Your task to perform on an android device: turn on translation in the chrome app Image 0: 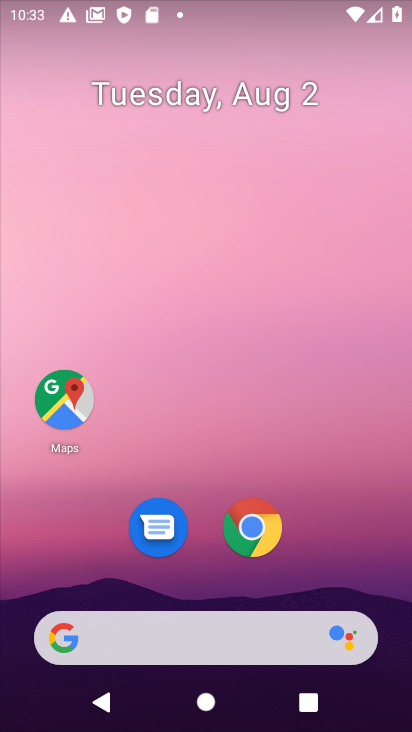
Step 0: click (249, 524)
Your task to perform on an android device: turn on translation in the chrome app Image 1: 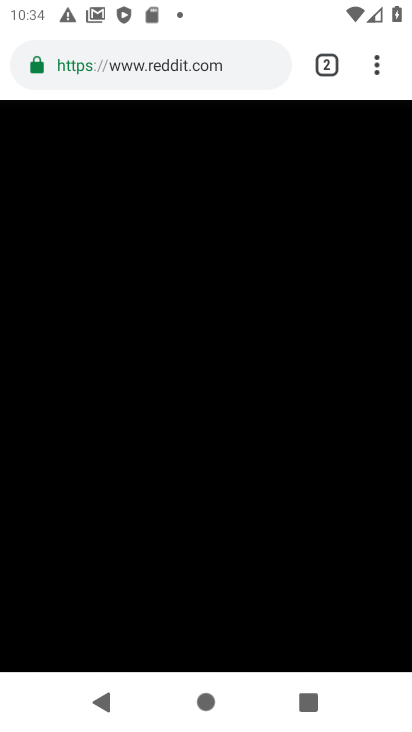
Step 1: click (378, 57)
Your task to perform on an android device: turn on translation in the chrome app Image 2: 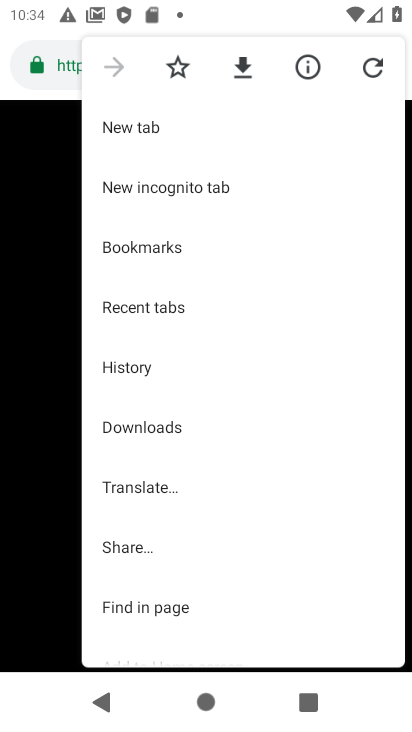
Step 2: drag from (225, 619) to (241, 129)
Your task to perform on an android device: turn on translation in the chrome app Image 3: 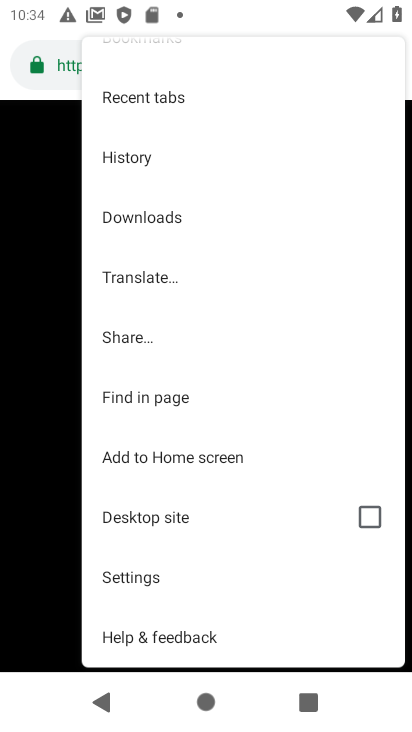
Step 3: click (175, 576)
Your task to perform on an android device: turn on translation in the chrome app Image 4: 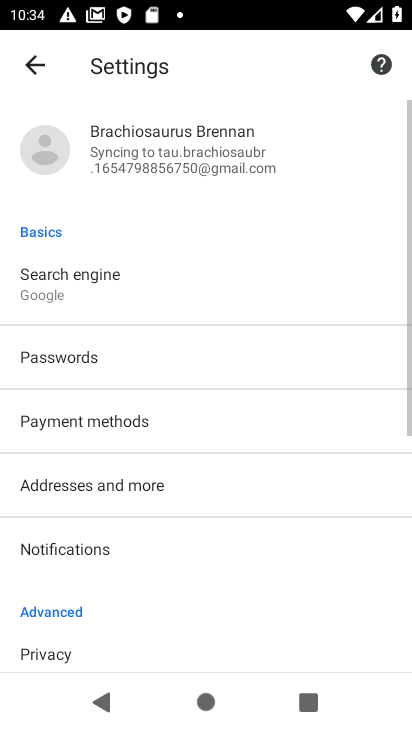
Step 4: drag from (189, 633) to (177, 128)
Your task to perform on an android device: turn on translation in the chrome app Image 5: 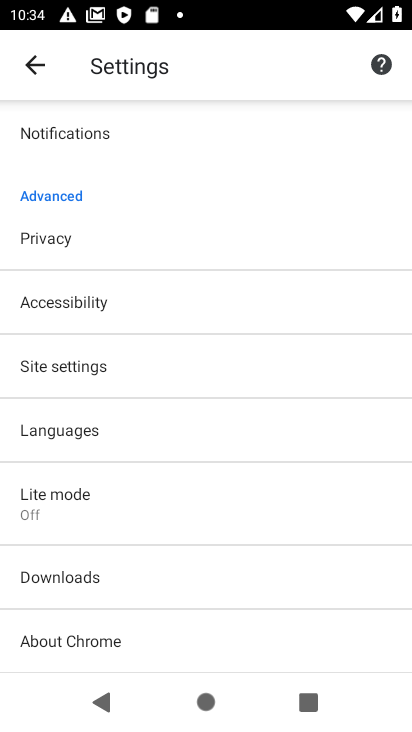
Step 5: click (113, 431)
Your task to perform on an android device: turn on translation in the chrome app Image 6: 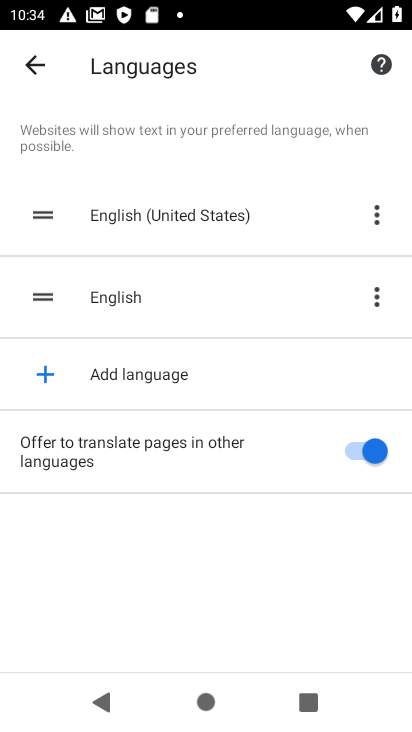
Step 6: task complete